Your task to perform on an android device: open wifi settings Image 0: 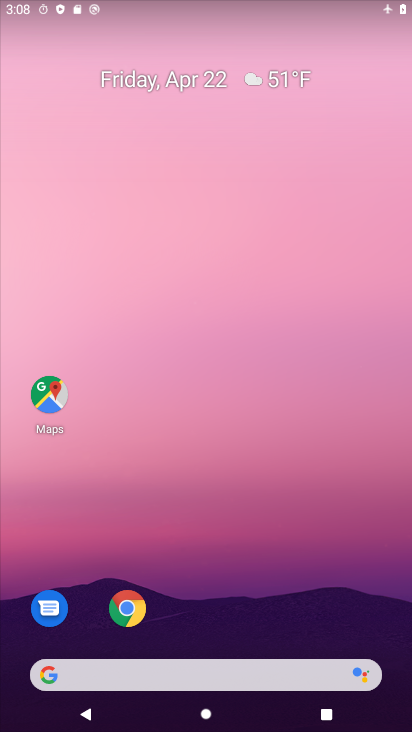
Step 0: drag from (291, 599) to (280, 30)
Your task to perform on an android device: open wifi settings Image 1: 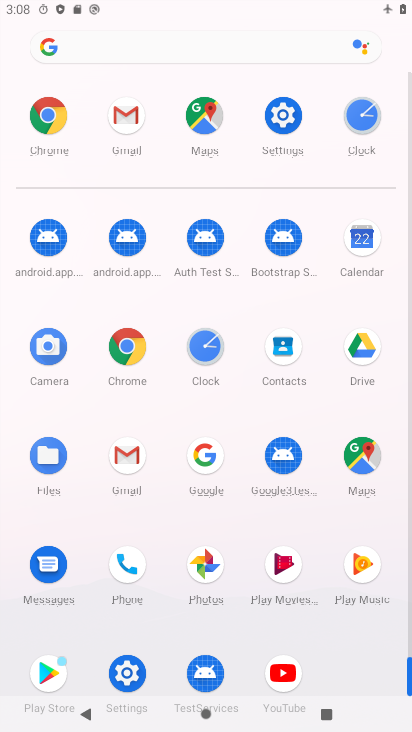
Step 1: click (283, 120)
Your task to perform on an android device: open wifi settings Image 2: 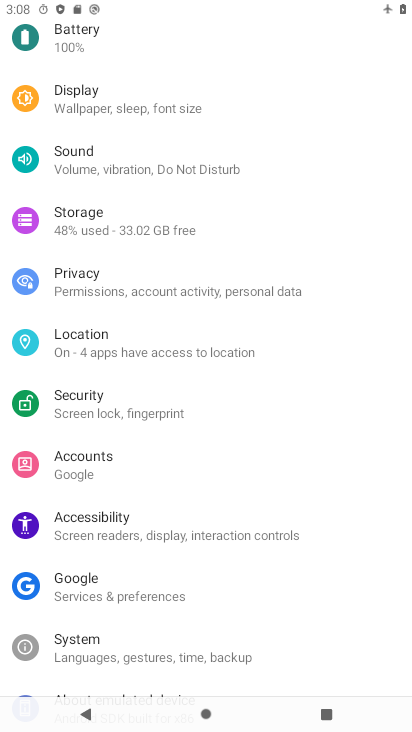
Step 2: drag from (200, 63) to (197, 493)
Your task to perform on an android device: open wifi settings Image 3: 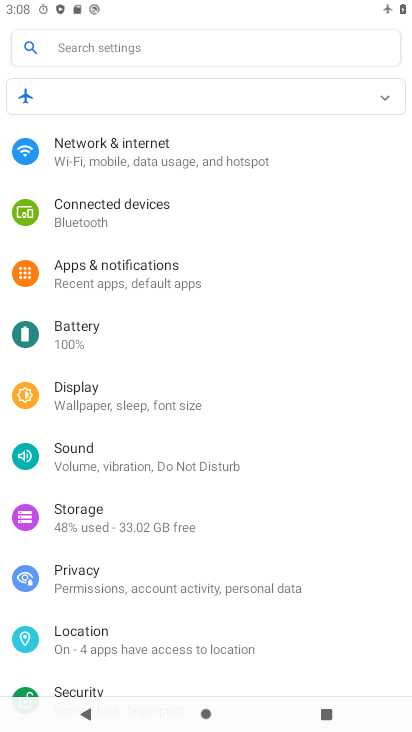
Step 3: click (139, 146)
Your task to perform on an android device: open wifi settings Image 4: 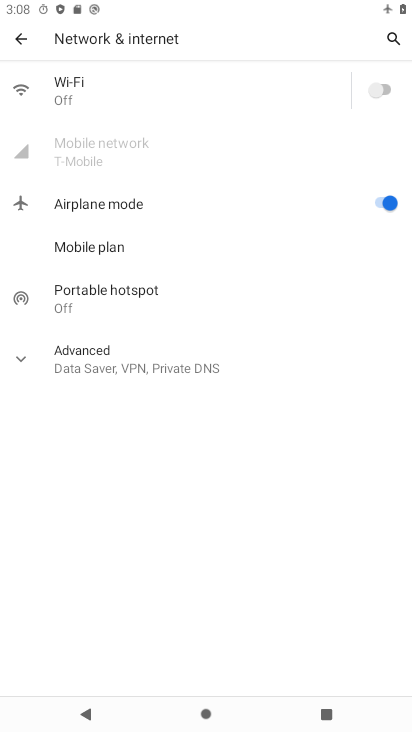
Step 4: click (101, 92)
Your task to perform on an android device: open wifi settings Image 5: 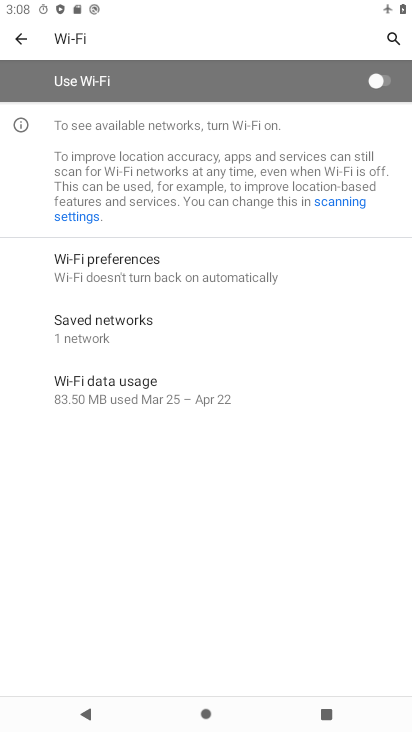
Step 5: task complete